Your task to perform on an android device: clear all cookies in the chrome app Image 0: 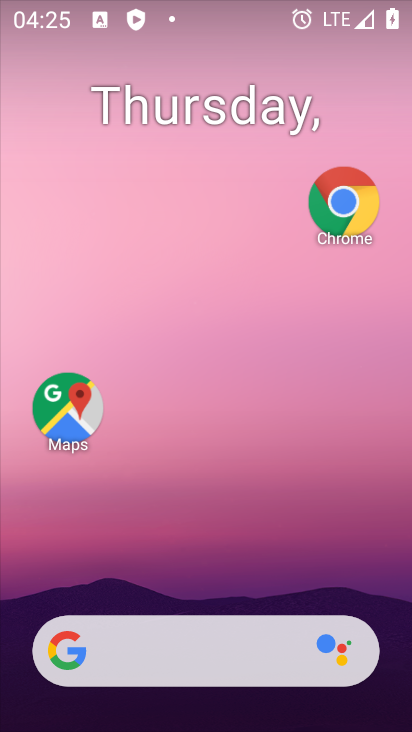
Step 0: drag from (257, 611) to (278, 5)
Your task to perform on an android device: clear all cookies in the chrome app Image 1: 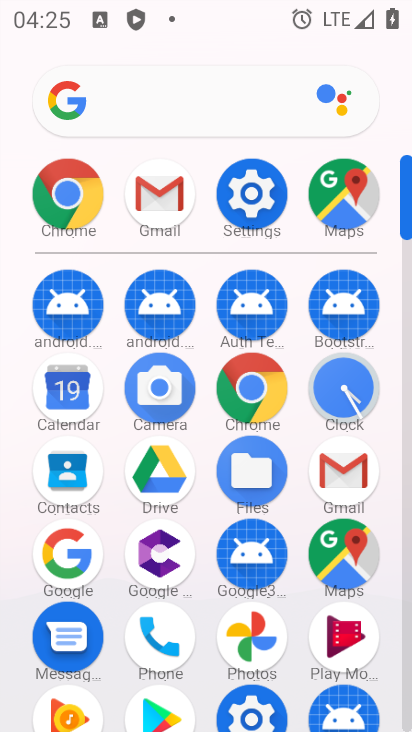
Step 1: click (265, 389)
Your task to perform on an android device: clear all cookies in the chrome app Image 2: 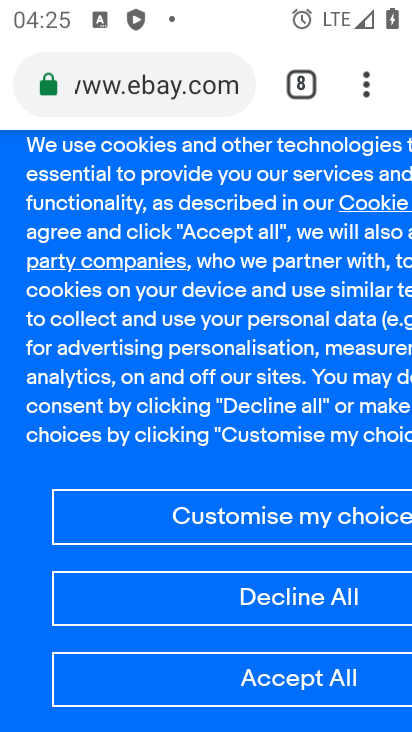
Step 2: click (364, 82)
Your task to perform on an android device: clear all cookies in the chrome app Image 3: 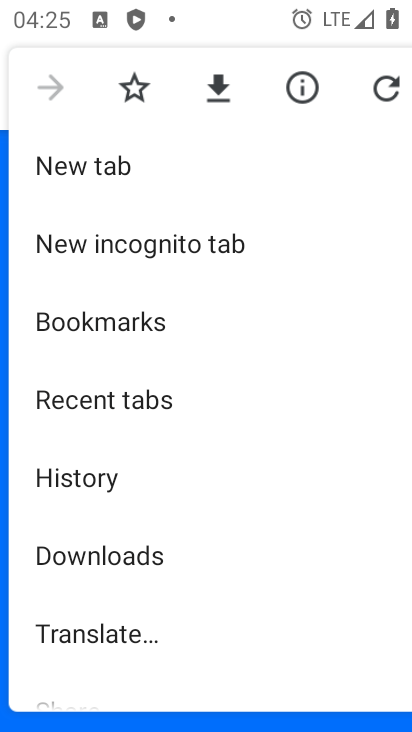
Step 3: drag from (220, 640) to (194, 66)
Your task to perform on an android device: clear all cookies in the chrome app Image 4: 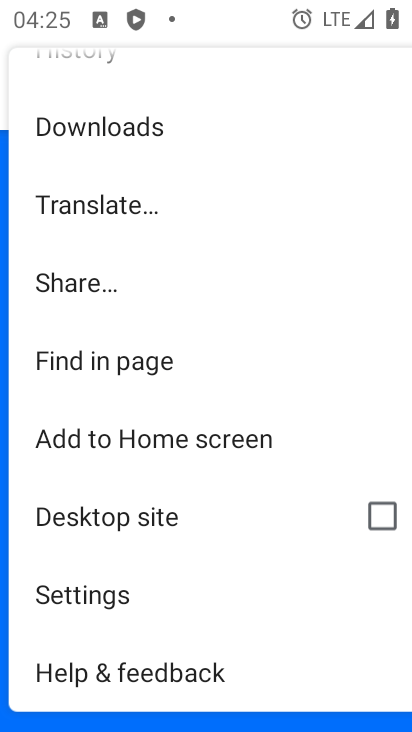
Step 4: drag from (149, 625) to (170, 323)
Your task to perform on an android device: clear all cookies in the chrome app Image 5: 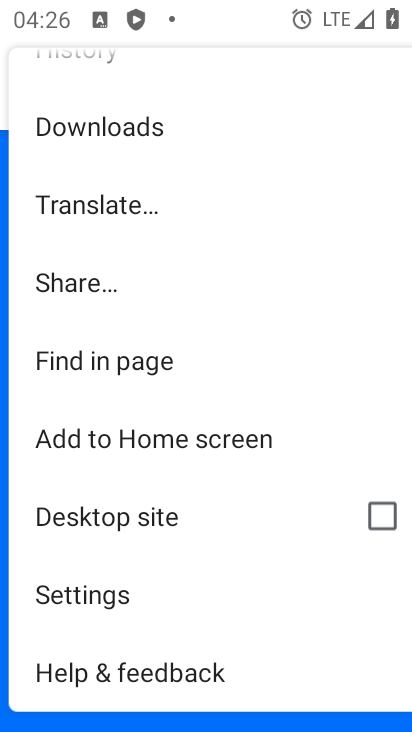
Step 5: drag from (211, 671) to (238, 261)
Your task to perform on an android device: clear all cookies in the chrome app Image 6: 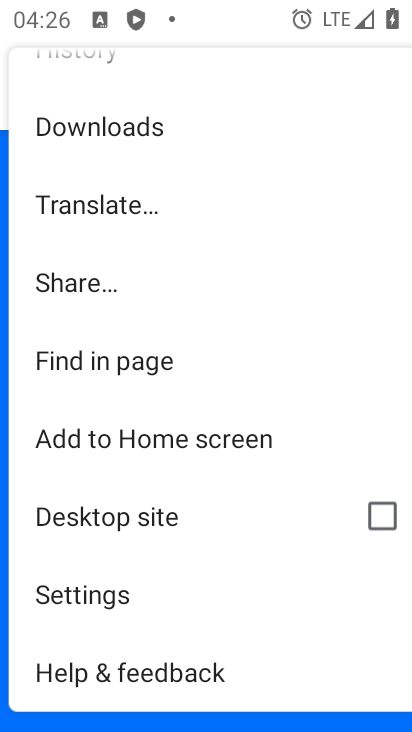
Step 6: click (144, 610)
Your task to perform on an android device: clear all cookies in the chrome app Image 7: 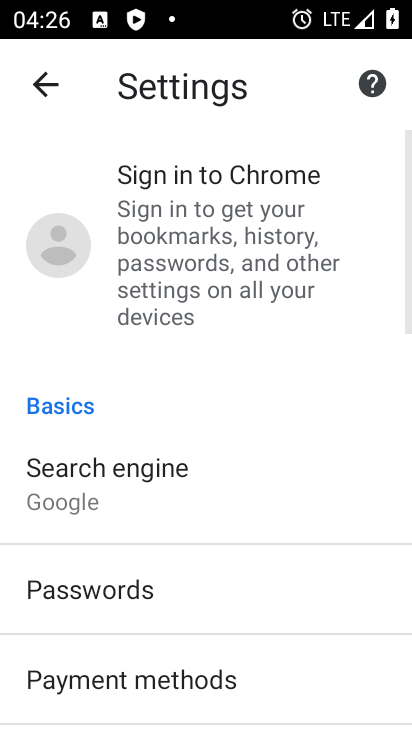
Step 7: drag from (220, 668) to (258, 202)
Your task to perform on an android device: clear all cookies in the chrome app Image 8: 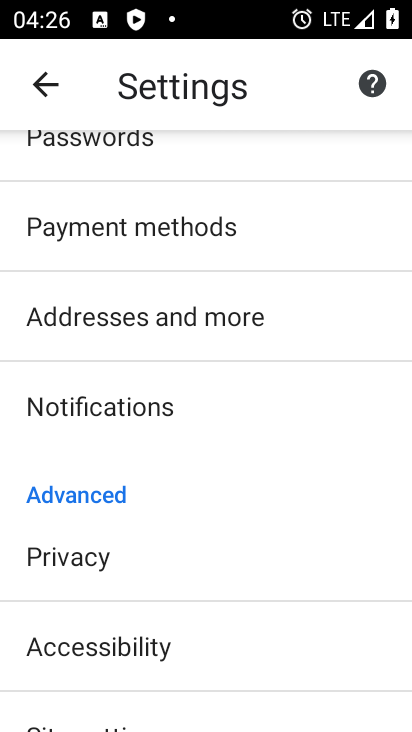
Step 8: click (67, 550)
Your task to perform on an android device: clear all cookies in the chrome app Image 9: 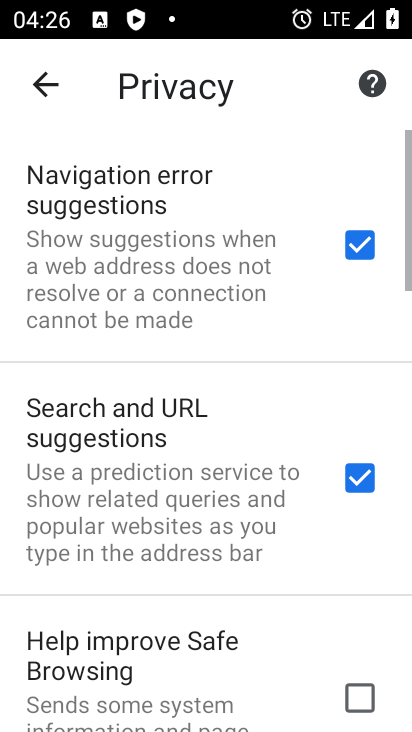
Step 9: drag from (268, 689) to (289, 64)
Your task to perform on an android device: clear all cookies in the chrome app Image 10: 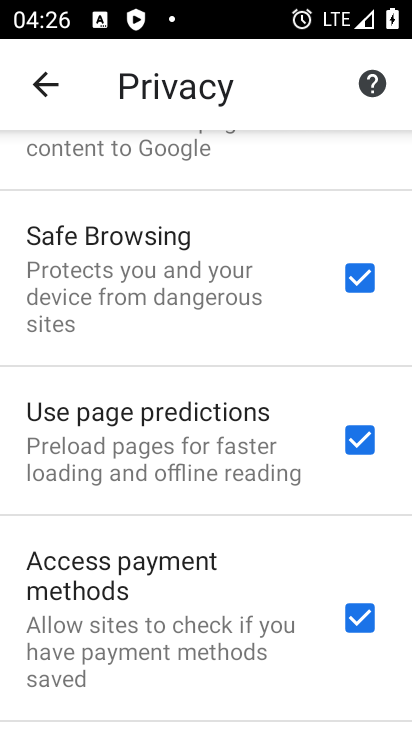
Step 10: drag from (264, 593) to (262, 67)
Your task to perform on an android device: clear all cookies in the chrome app Image 11: 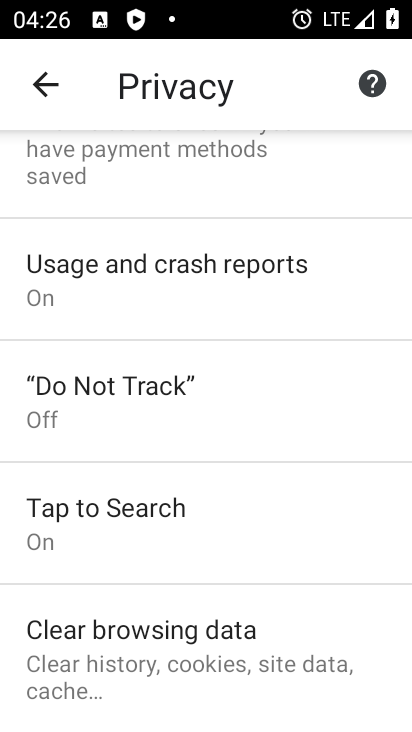
Step 11: click (172, 636)
Your task to perform on an android device: clear all cookies in the chrome app Image 12: 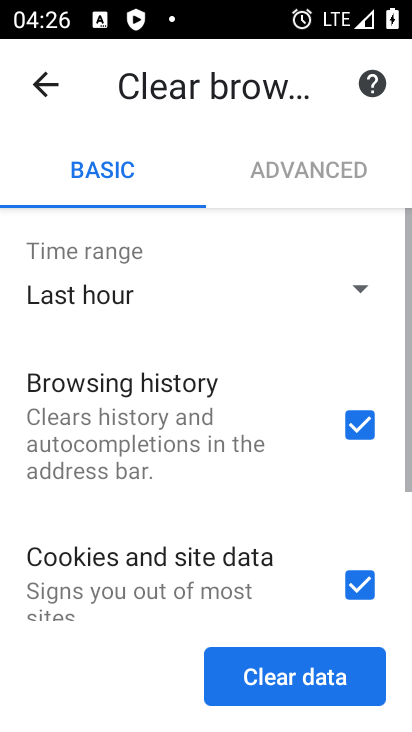
Step 12: click (306, 675)
Your task to perform on an android device: clear all cookies in the chrome app Image 13: 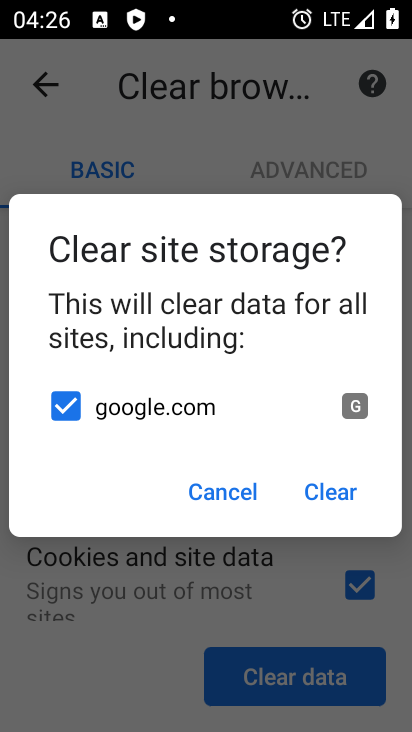
Step 13: click (330, 495)
Your task to perform on an android device: clear all cookies in the chrome app Image 14: 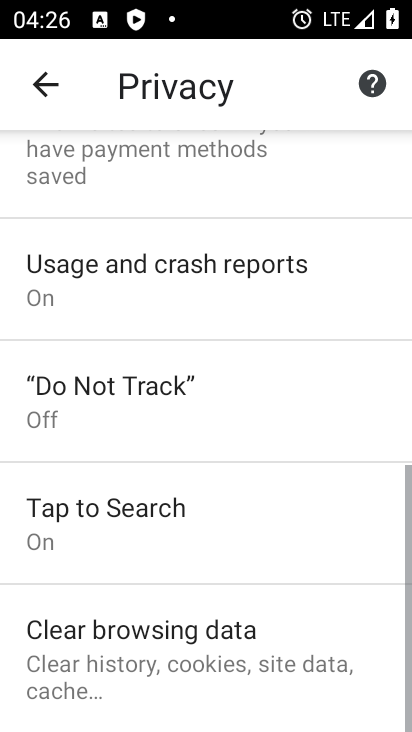
Step 14: task complete